Your task to perform on an android device: turn on improve location accuracy Image 0: 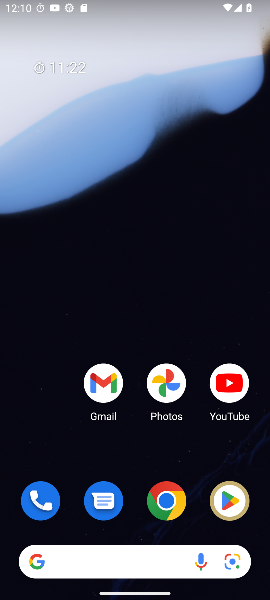
Step 0: drag from (198, 465) to (145, 190)
Your task to perform on an android device: turn on improve location accuracy Image 1: 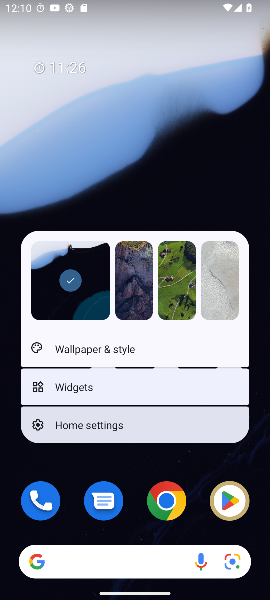
Step 1: click (210, 184)
Your task to perform on an android device: turn on improve location accuracy Image 2: 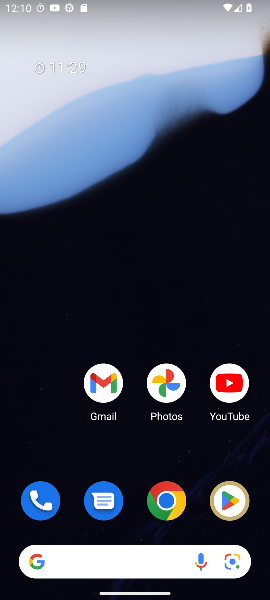
Step 2: drag from (125, 460) to (83, 15)
Your task to perform on an android device: turn on improve location accuracy Image 3: 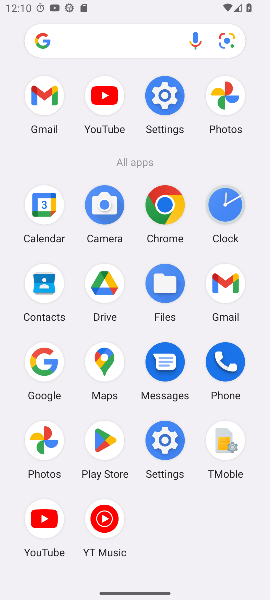
Step 3: click (169, 451)
Your task to perform on an android device: turn on improve location accuracy Image 4: 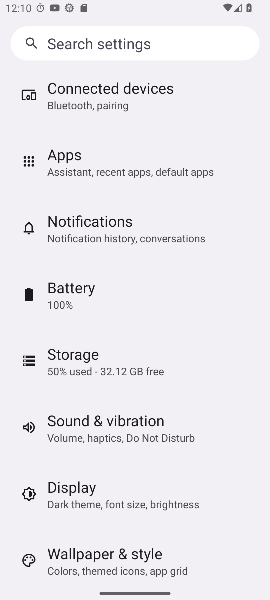
Step 4: drag from (149, 479) to (122, 229)
Your task to perform on an android device: turn on improve location accuracy Image 5: 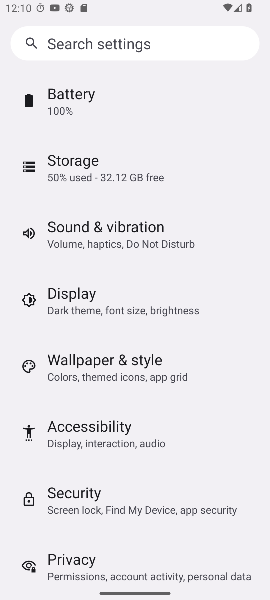
Step 5: drag from (117, 467) to (119, 288)
Your task to perform on an android device: turn on improve location accuracy Image 6: 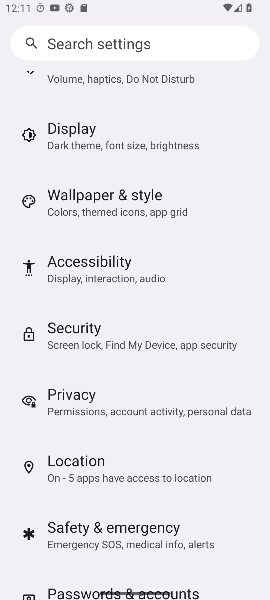
Step 6: click (65, 468)
Your task to perform on an android device: turn on improve location accuracy Image 7: 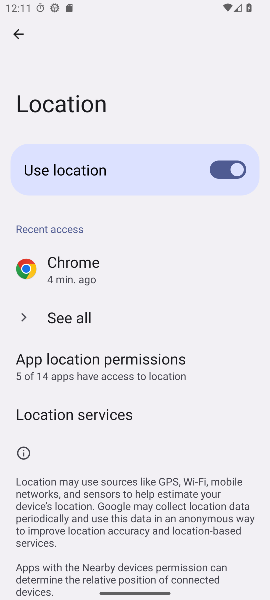
Step 7: click (125, 413)
Your task to perform on an android device: turn on improve location accuracy Image 8: 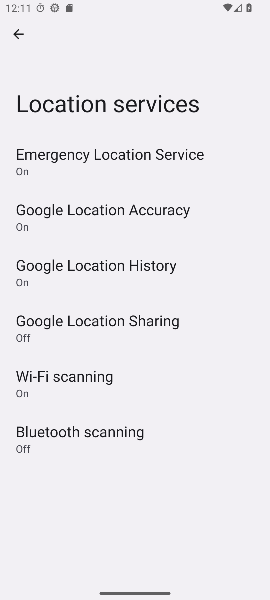
Step 8: click (127, 218)
Your task to perform on an android device: turn on improve location accuracy Image 9: 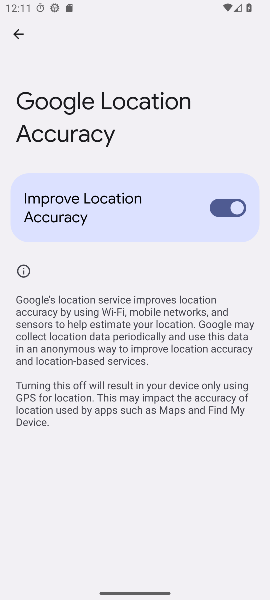
Step 9: task complete